Your task to perform on an android device: Go to calendar. Show me events next week Image 0: 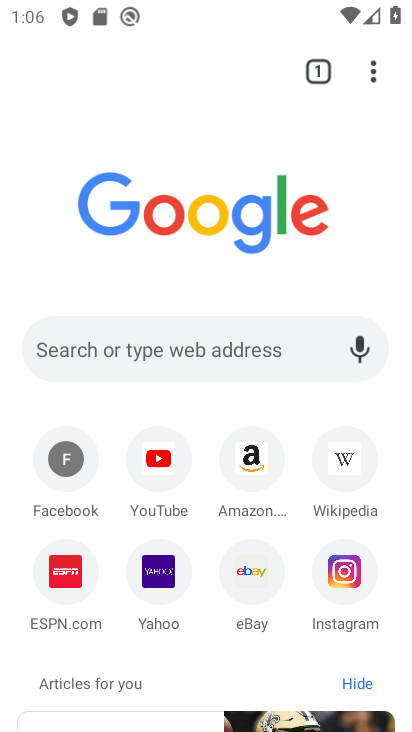
Step 0: press back button
Your task to perform on an android device: Go to calendar. Show me events next week Image 1: 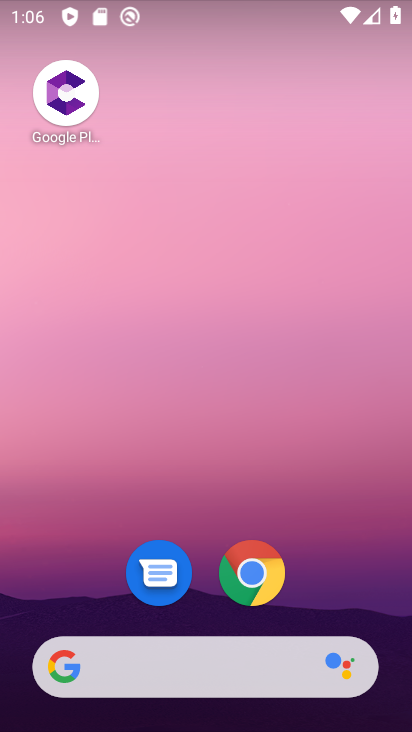
Step 1: drag from (342, 579) to (246, 44)
Your task to perform on an android device: Go to calendar. Show me events next week Image 2: 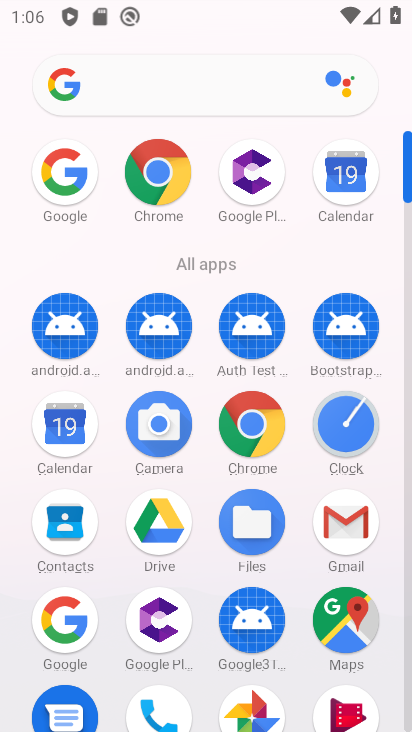
Step 2: click (347, 173)
Your task to perform on an android device: Go to calendar. Show me events next week Image 3: 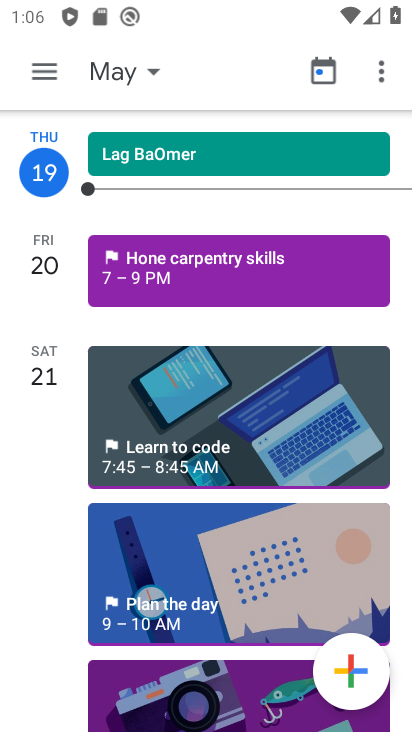
Step 3: click (54, 74)
Your task to perform on an android device: Go to calendar. Show me events next week Image 4: 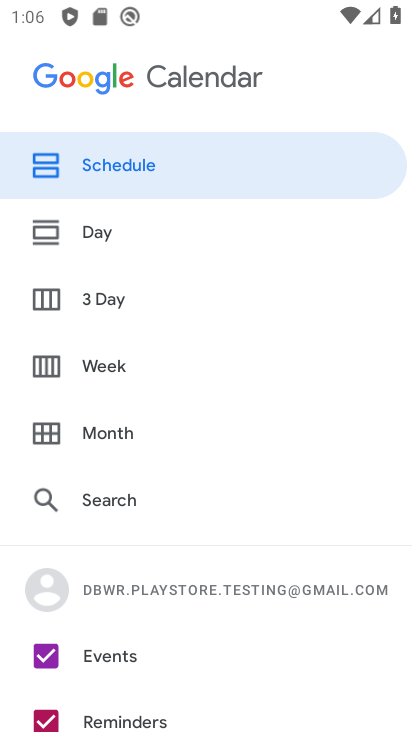
Step 4: click (119, 361)
Your task to perform on an android device: Go to calendar. Show me events next week Image 5: 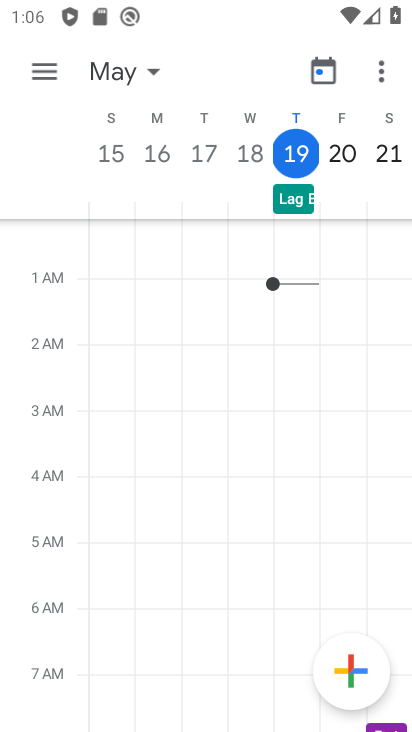
Step 5: task complete